Your task to perform on an android device: Turn off the flashlight Image 0: 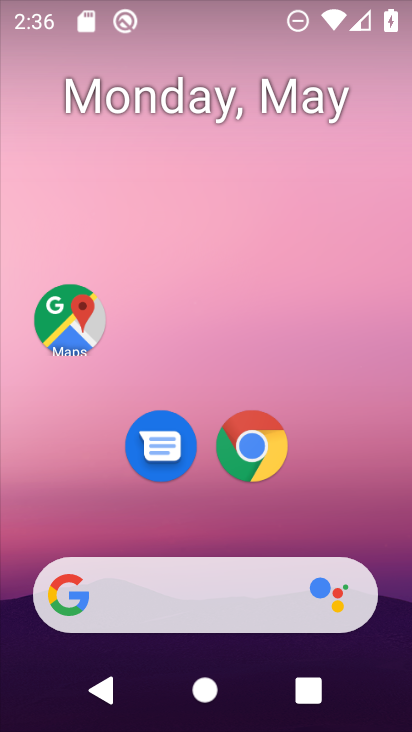
Step 0: drag from (188, 487) to (237, 20)
Your task to perform on an android device: Turn off the flashlight Image 1: 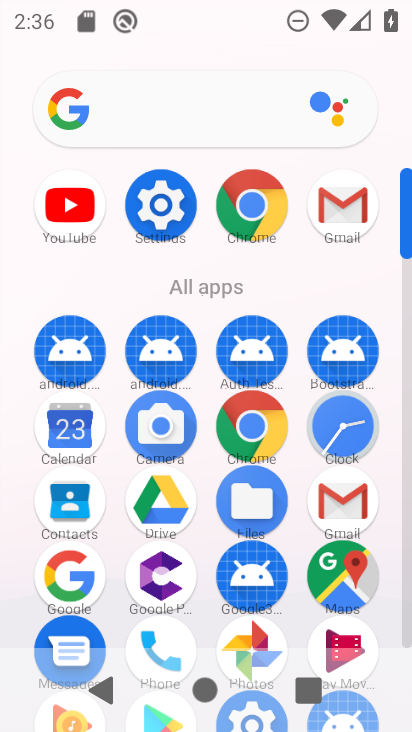
Step 1: click (159, 181)
Your task to perform on an android device: Turn off the flashlight Image 2: 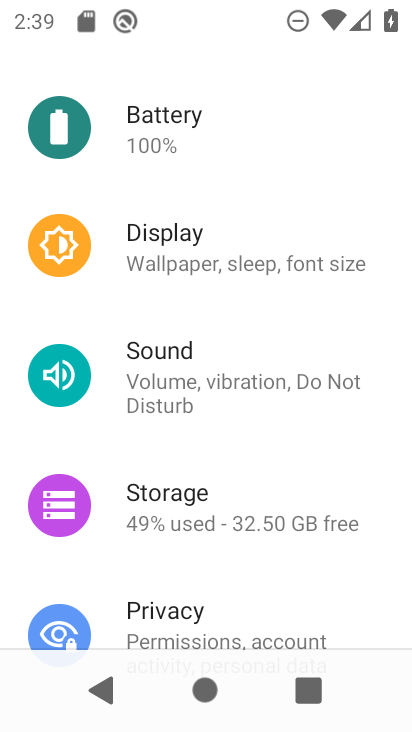
Step 2: task complete